Your task to perform on an android device: Open Youtube and go to "Your channel" Image 0: 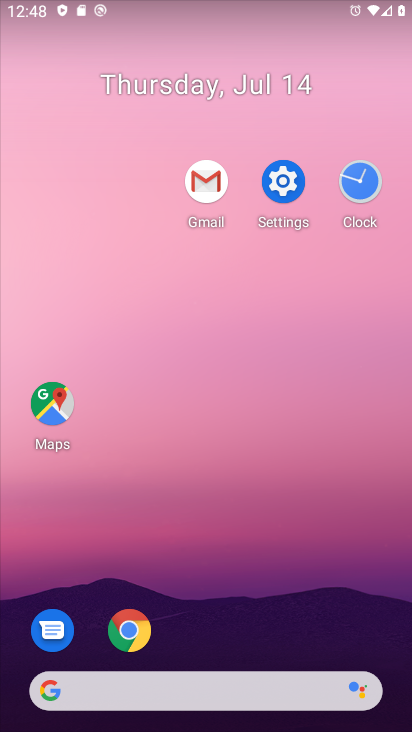
Step 0: drag from (273, 635) to (325, 65)
Your task to perform on an android device: Open Youtube and go to "Your channel" Image 1: 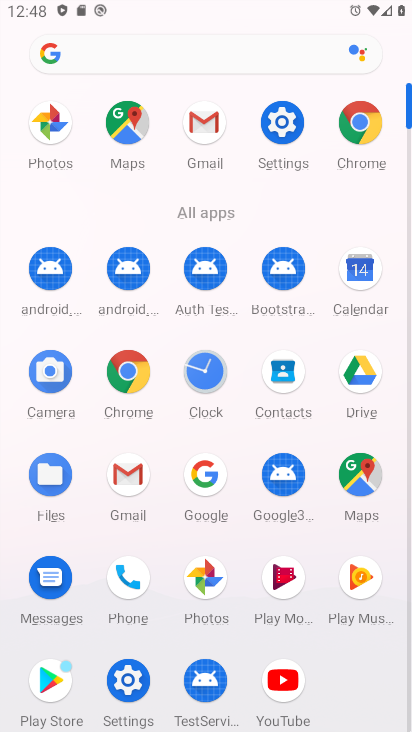
Step 1: click (268, 689)
Your task to perform on an android device: Open Youtube and go to "Your channel" Image 2: 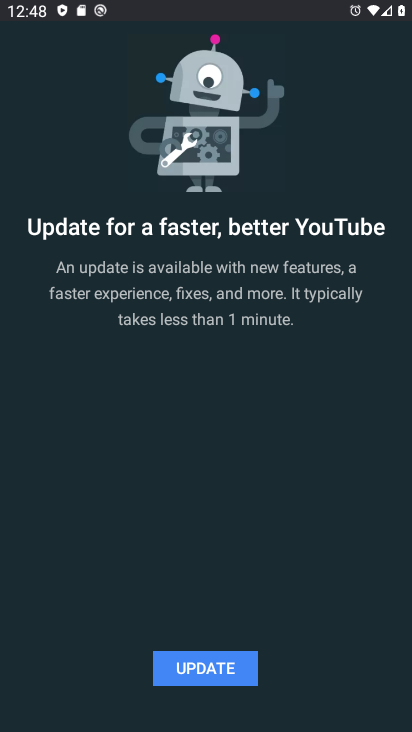
Step 2: click (195, 659)
Your task to perform on an android device: Open Youtube and go to "Your channel" Image 3: 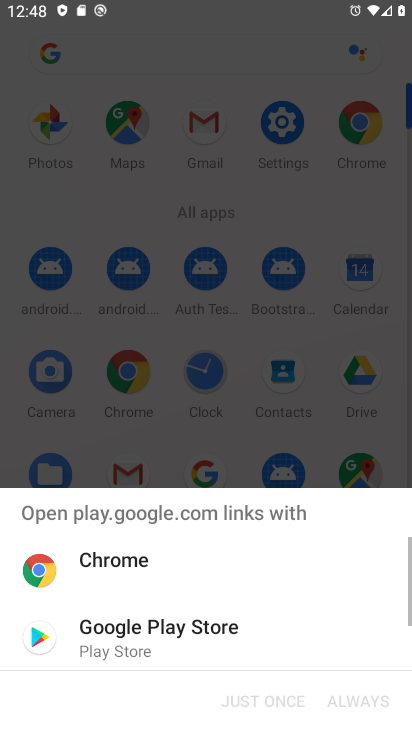
Step 3: click (198, 628)
Your task to perform on an android device: Open Youtube and go to "Your channel" Image 4: 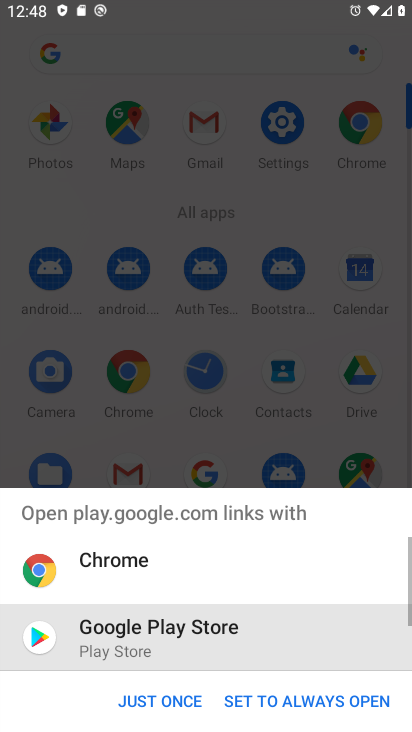
Step 4: task complete